Your task to perform on an android device: Search for vegetarian restaurants on Maps Image 0: 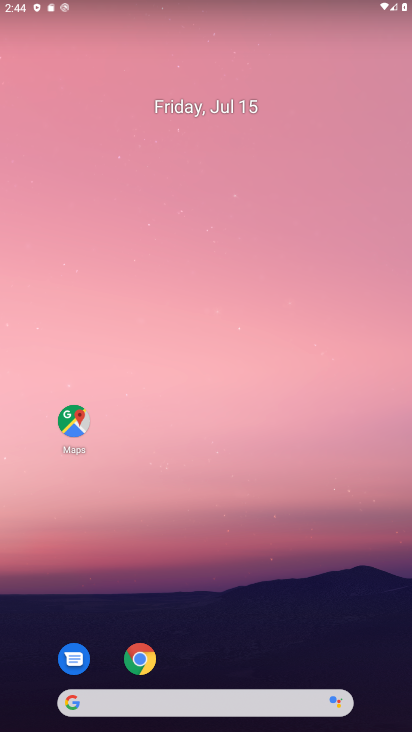
Step 0: drag from (229, 455) to (229, 299)
Your task to perform on an android device: Search for vegetarian restaurants on Maps Image 1: 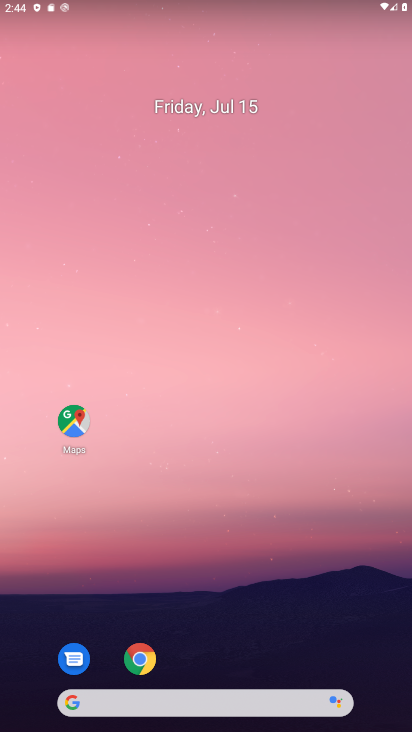
Step 1: drag from (207, 687) to (199, 211)
Your task to perform on an android device: Search for vegetarian restaurants on Maps Image 2: 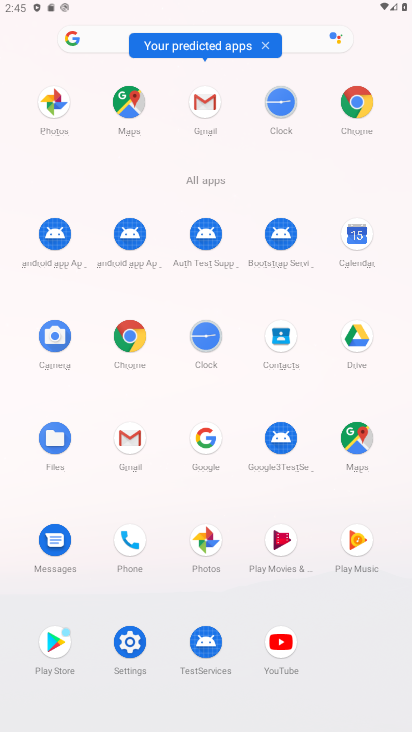
Step 2: click (353, 437)
Your task to perform on an android device: Search for vegetarian restaurants on Maps Image 3: 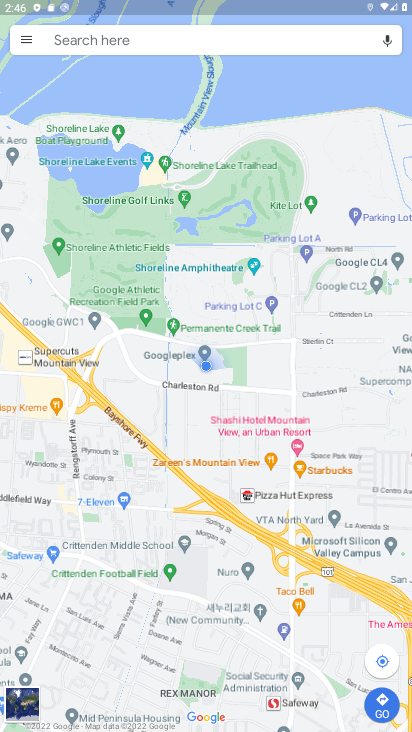
Step 3: click (141, 37)
Your task to perform on an android device: Search for vegetarian restaurants on Maps Image 4: 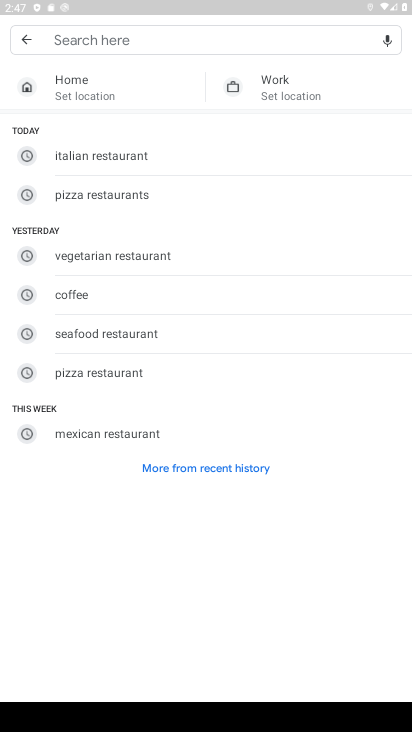
Step 4: click (89, 254)
Your task to perform on an android device: Search for vegetarian restaurants on Maps Image 5: 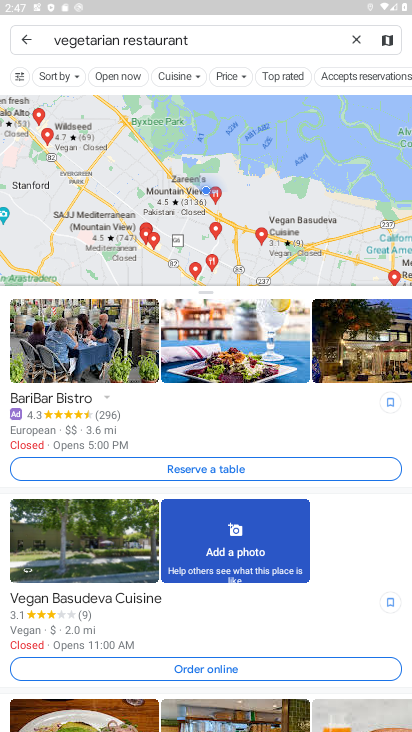
Step 5: task complete